Your task to perform on an android device: How big is the earth? Image 0: 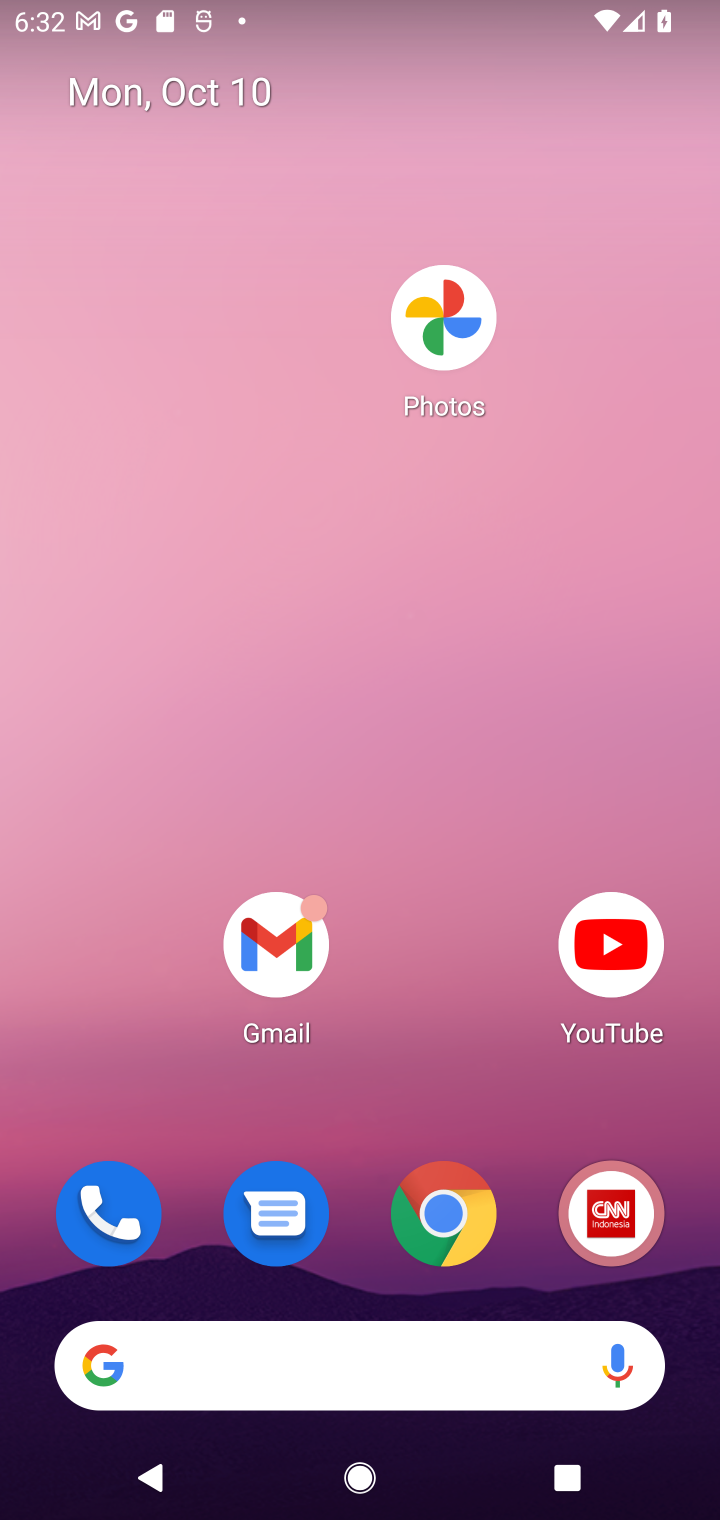
Step 0: click (441, 1351)
Your task to perform on an android device: How big is the earth? Image 1: 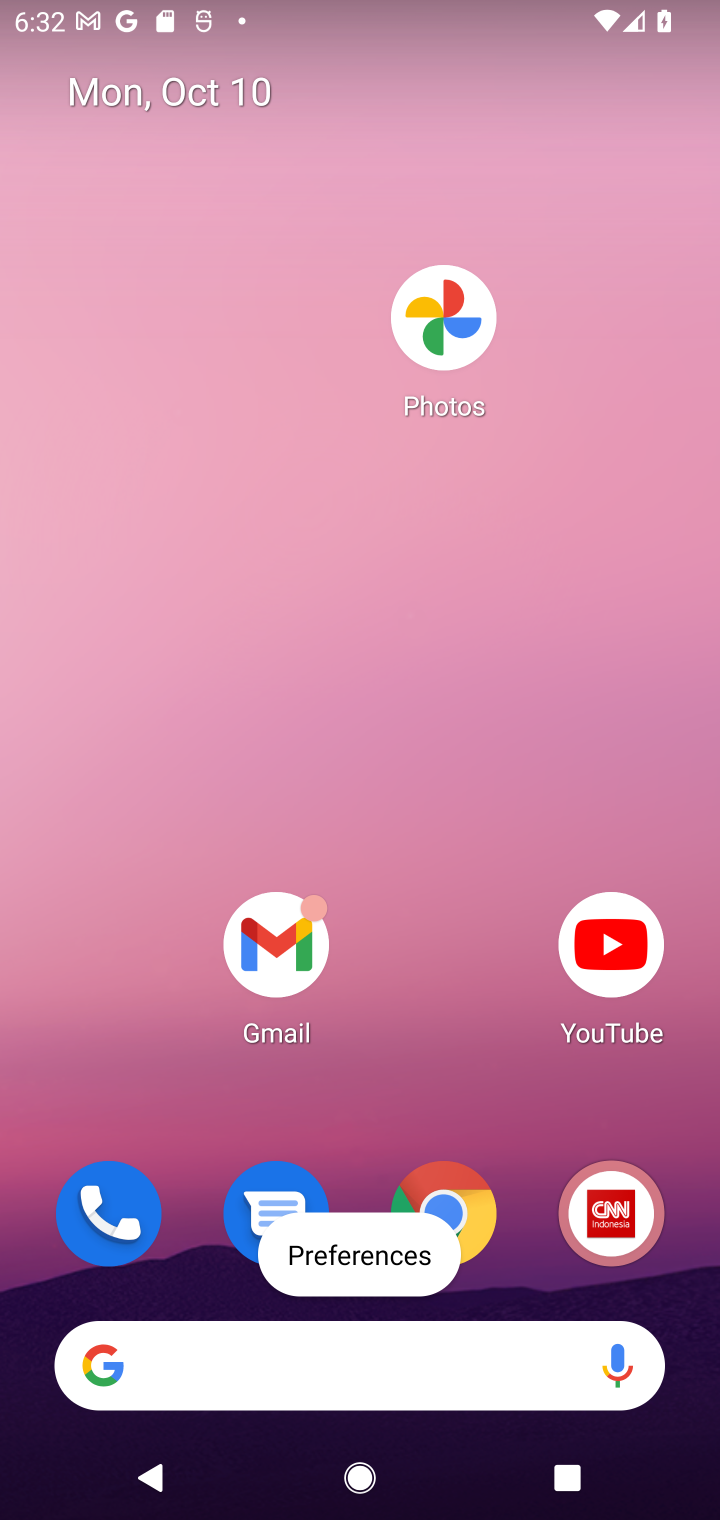
Step 1: click (340, 1392)
Your task to perform on an android device: How big is the earth? Image 2: 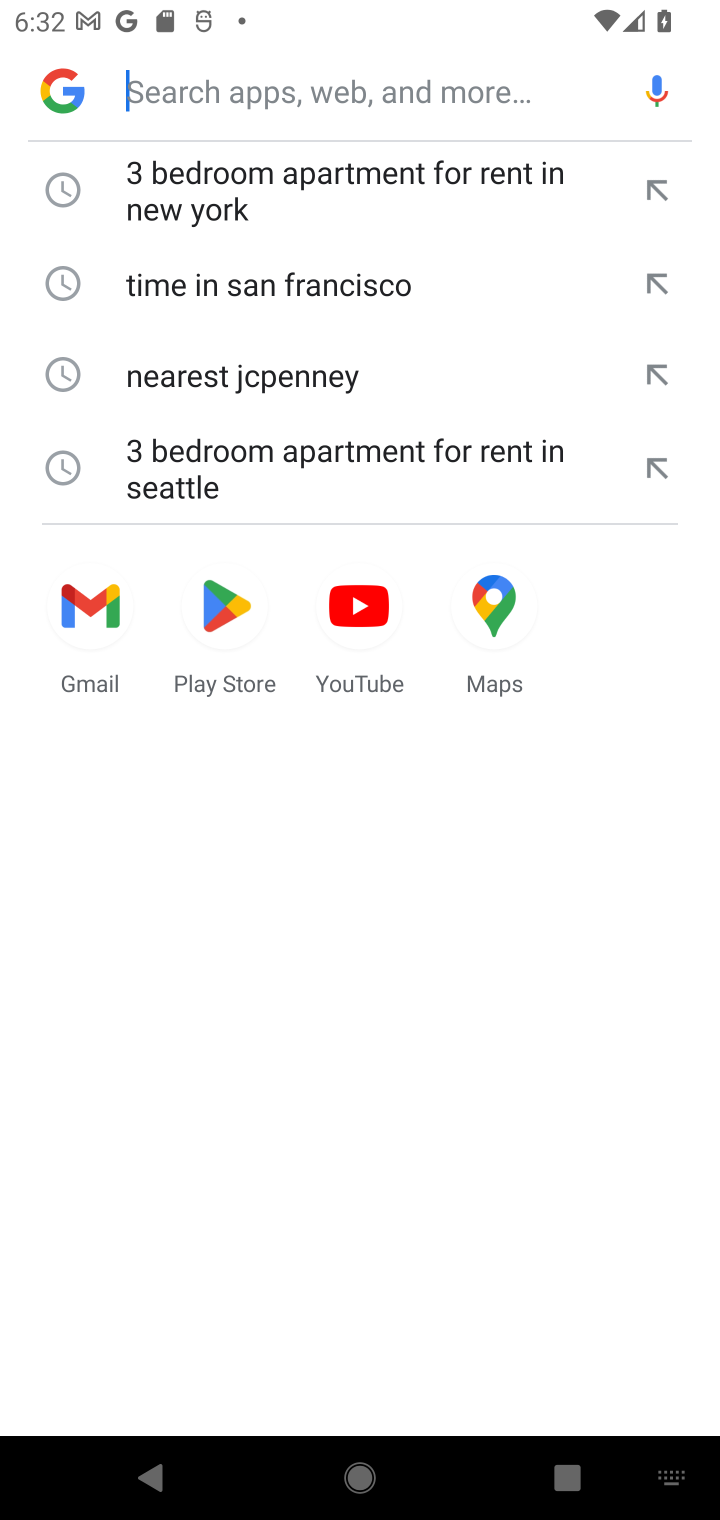
Step 2: type "How big is the earth?"
Your task to perform on an android device: How big is the earth? Image 3: 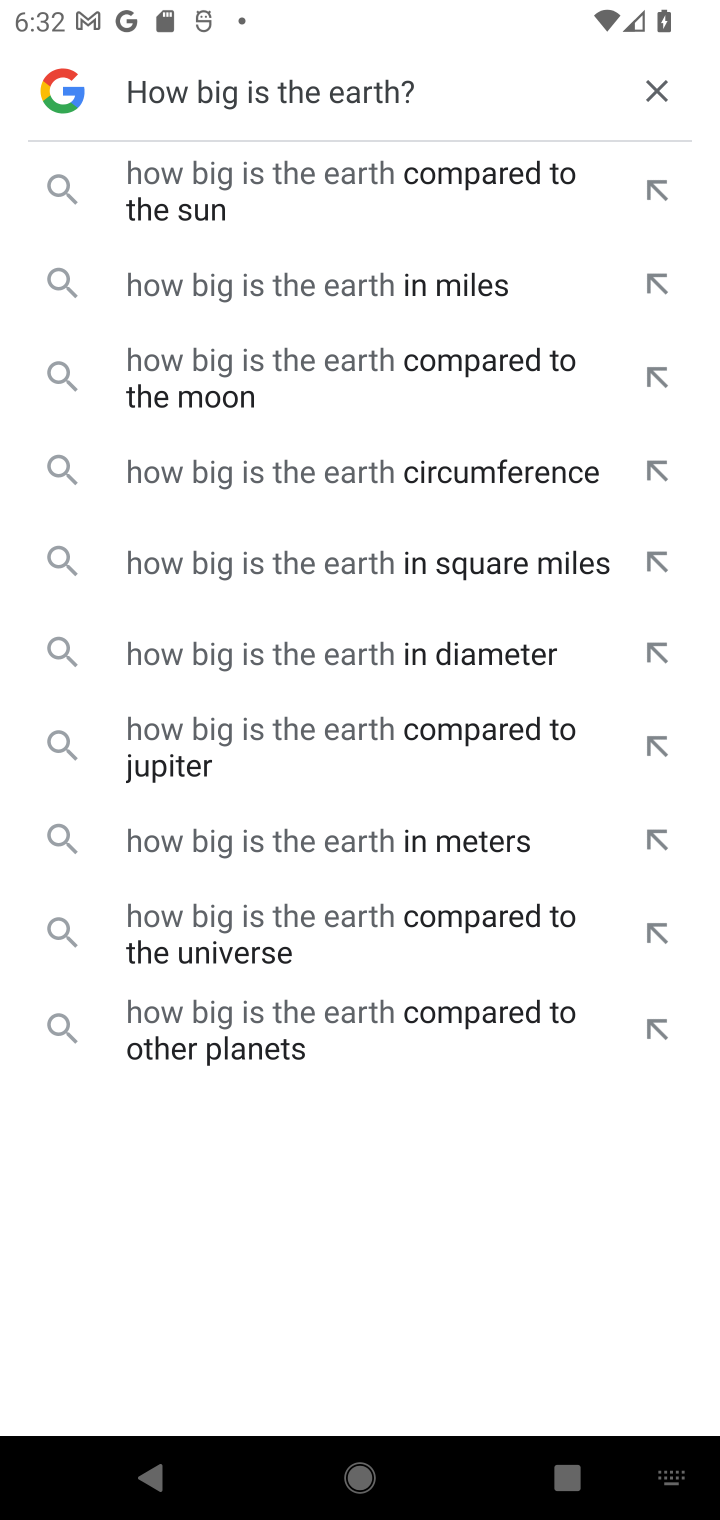
Step 3: click (383, 298)
Your task to perform on an android device: How big is the earth? Image 4: 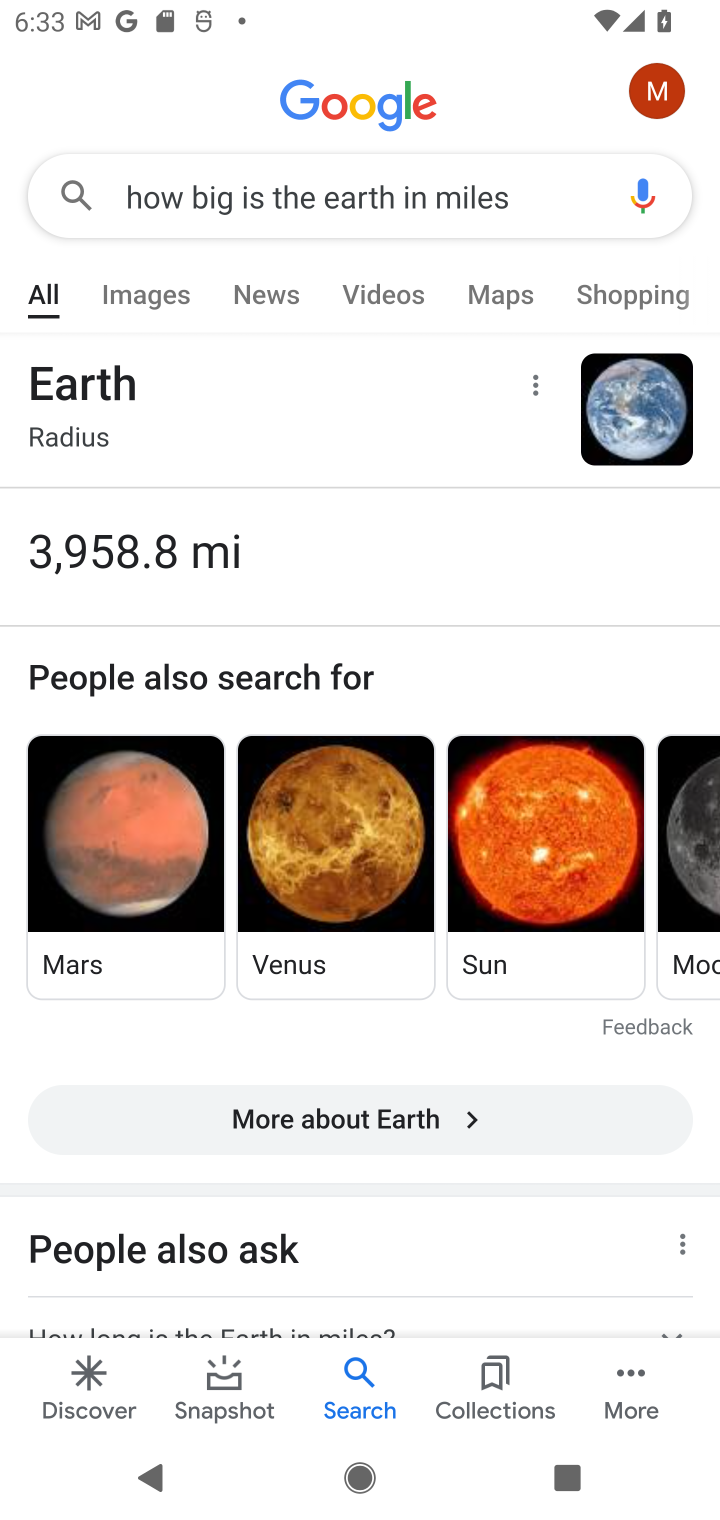
Step 4: task complete